Your task to perform on an android device: toggle location history Image 0: 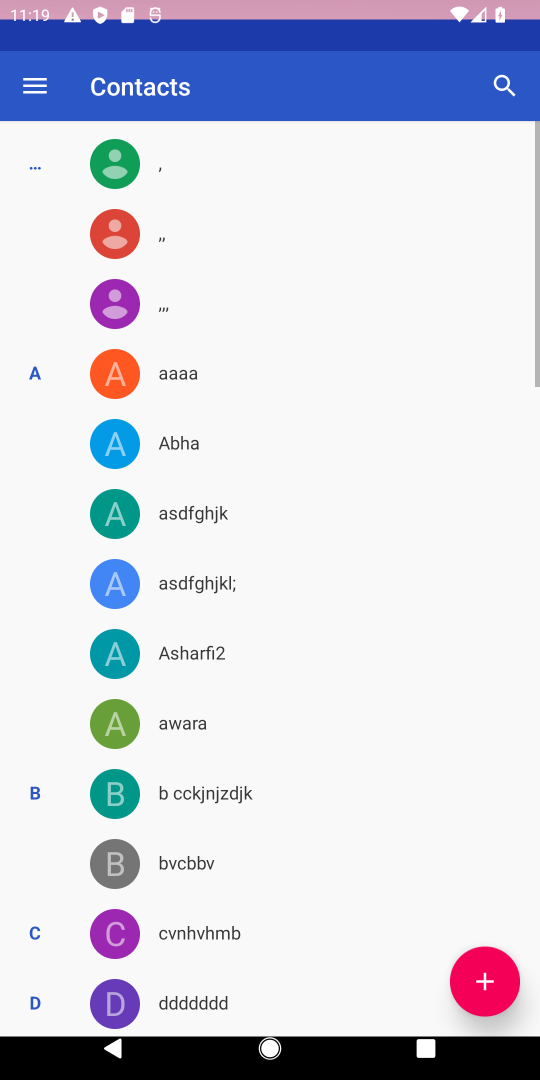
Step 0: press home button
Your task to perform on an android device: toggle location history Image 1: 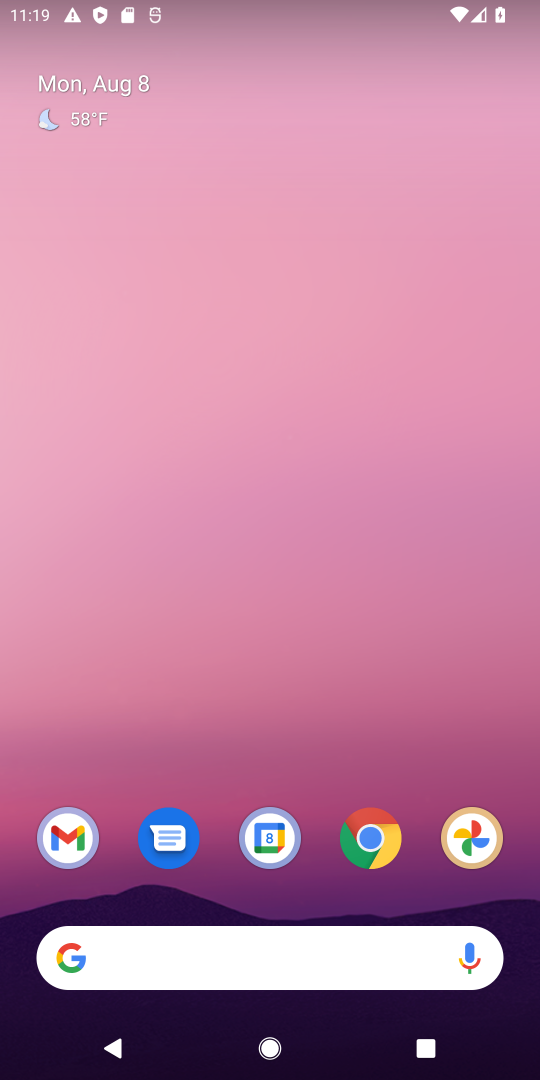
Step 1: drag from (352, 799) to (384, 174)
Your task to perform on an android device: toggle location history Image 2: 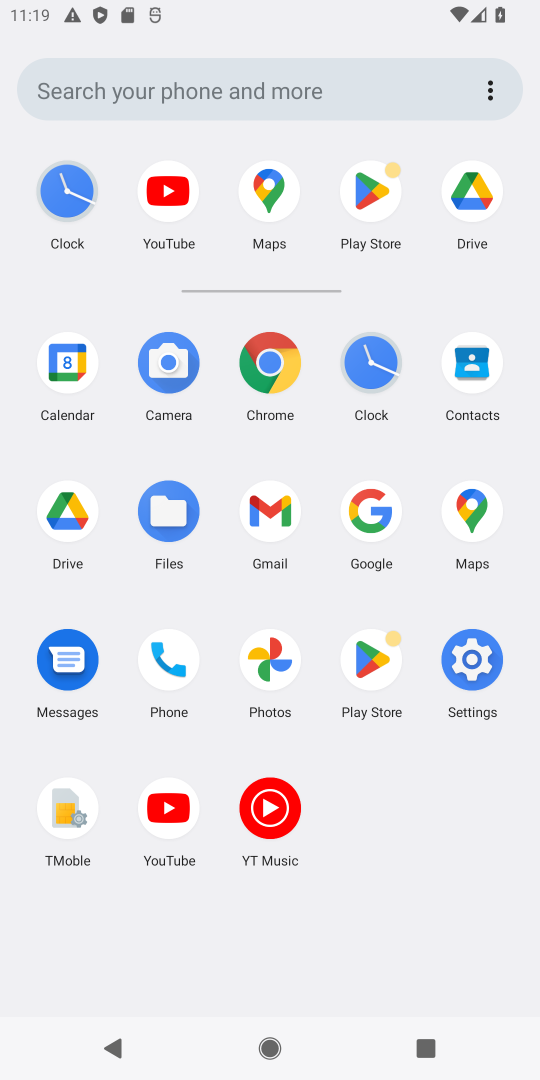
Step 2: click (471, 656)
Your task to perform on an android device: toggle location history Image 3: 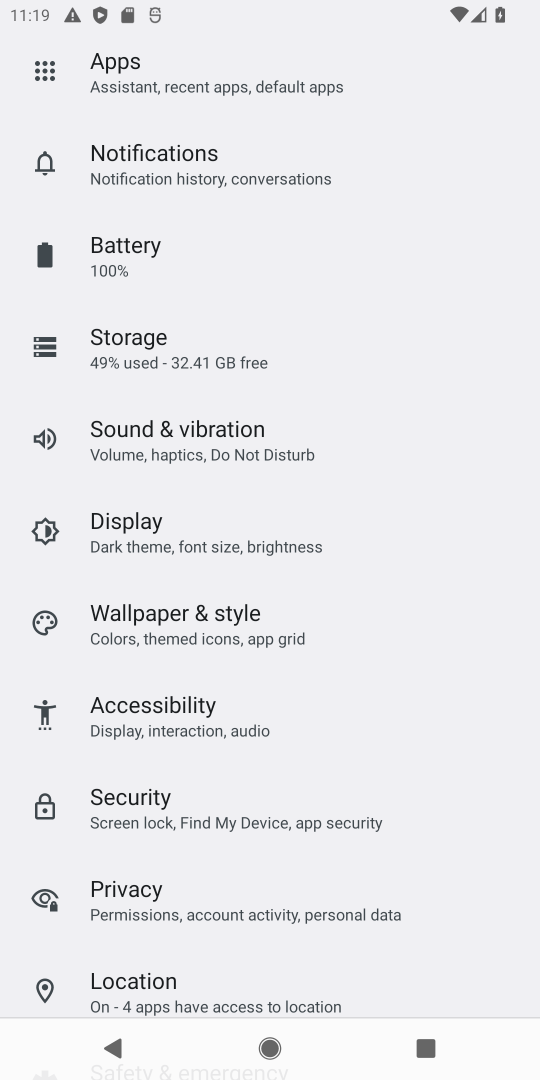
Step 3: click (125, 988)
Your task to perform on an android device: toggle location history Image 4: 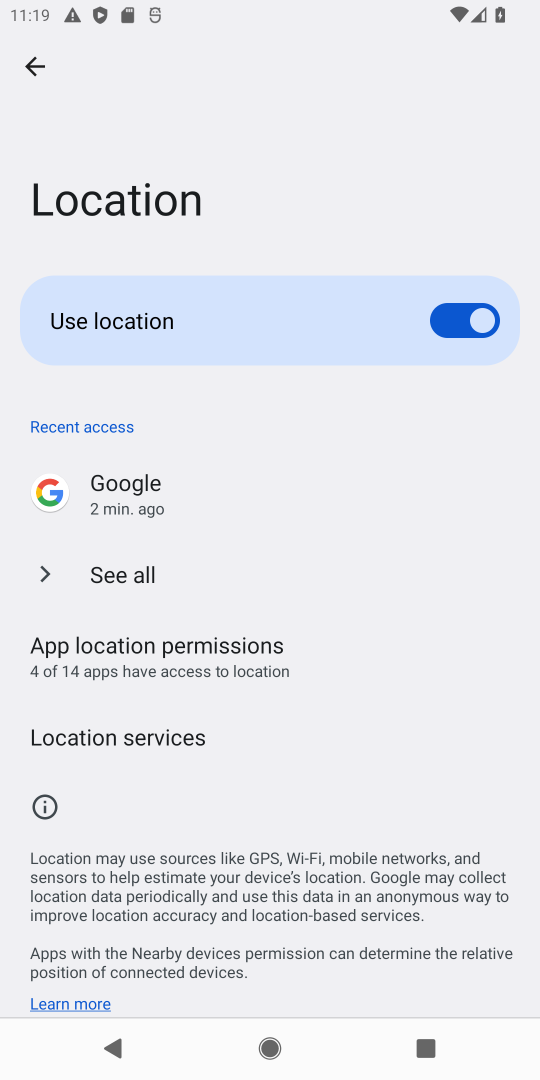
Step 4: click (100, 743)
Your task to perform on an android device: toggle location history Image 5: 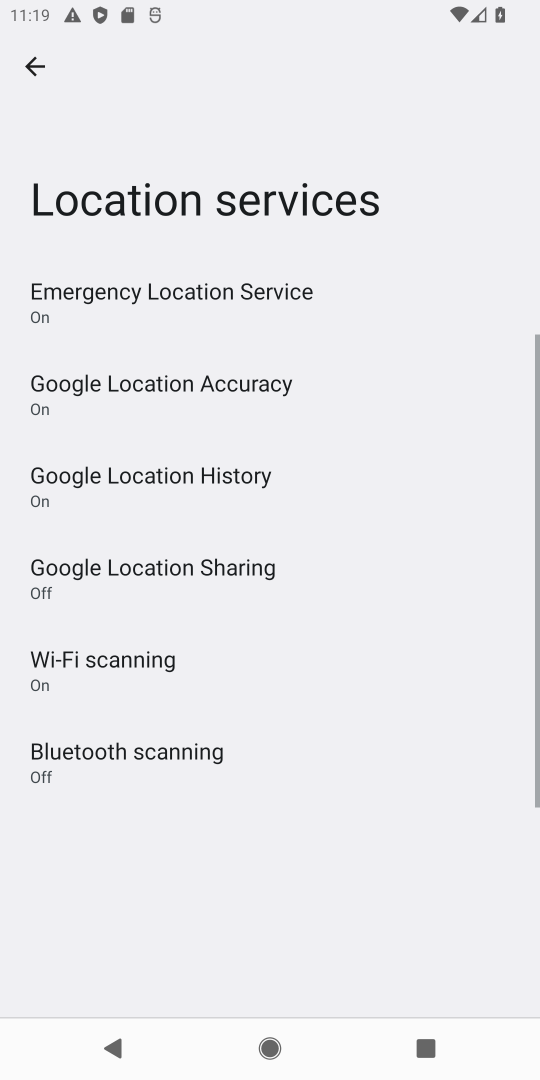
Step 5: click (211, 481)
Your task to perform on an android device: toggle location history Image 6: 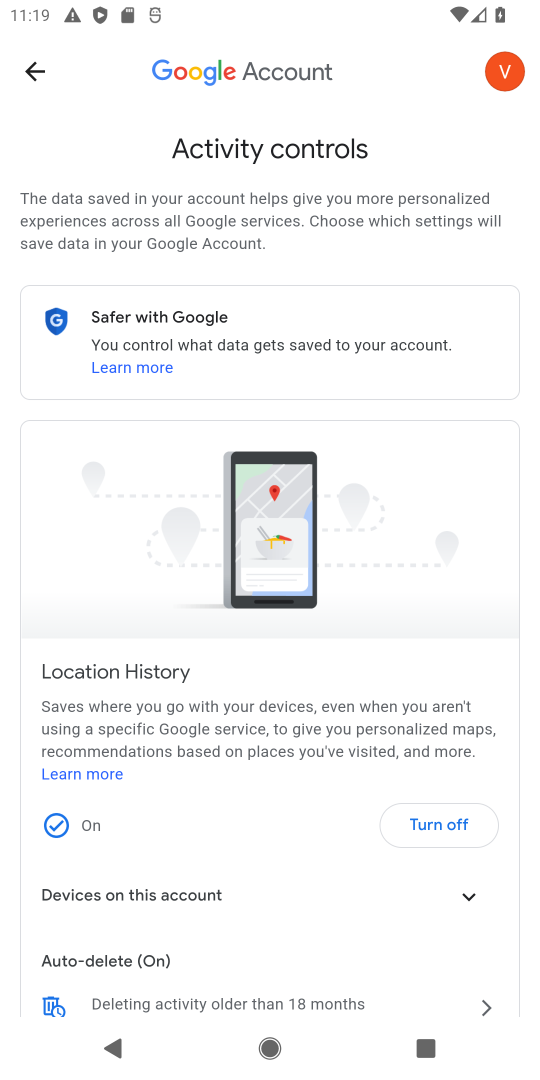
Step 6: click (446, 815)
Your task to perform on an android device: toggle location history Image 7: 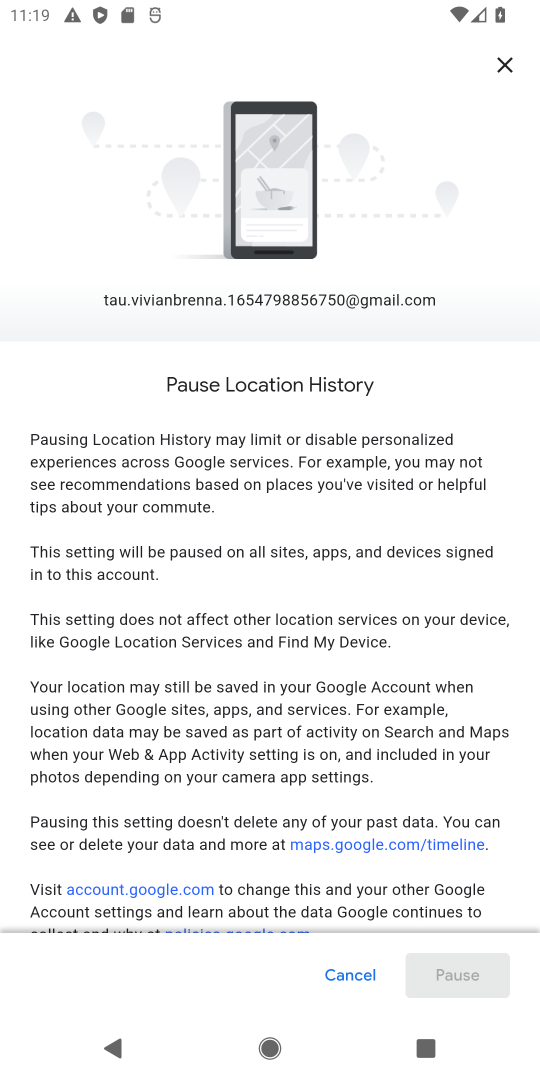
Step 7: drag from (488, 904) to (466, 238)
Your task to perform on an android device: toggle location history Image 8: 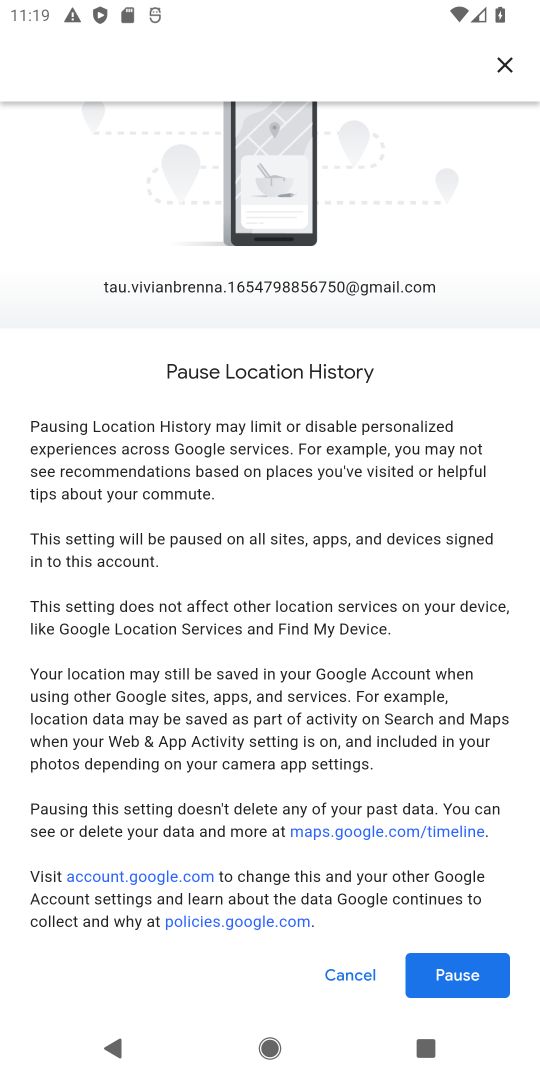
Step 8: click (452, 978)
Your task to perform on an android device: toggle location history Image 9: 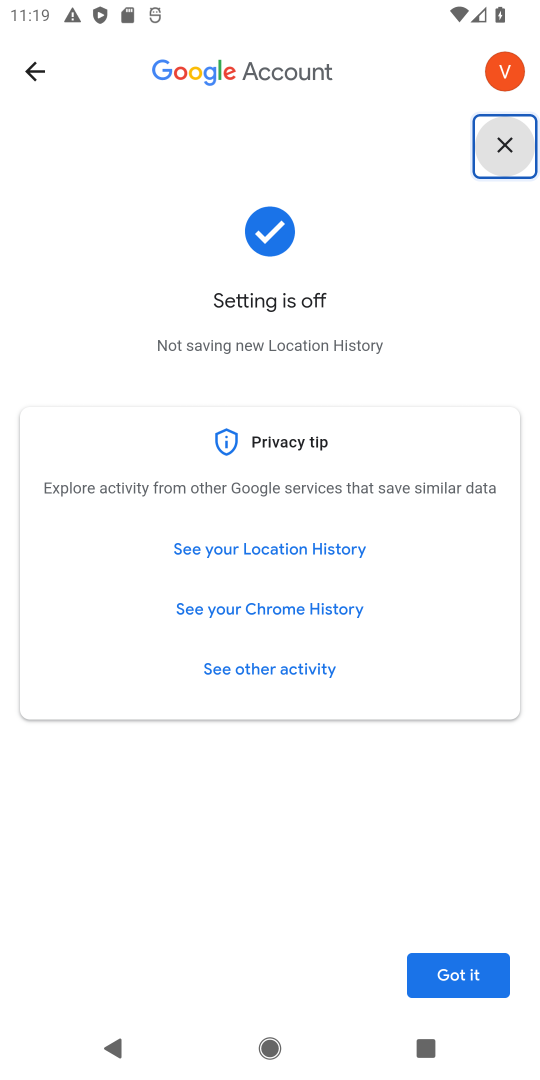
Step 9: click (456, 982)
Your task to perform on an android device: toggle location history Image 10: 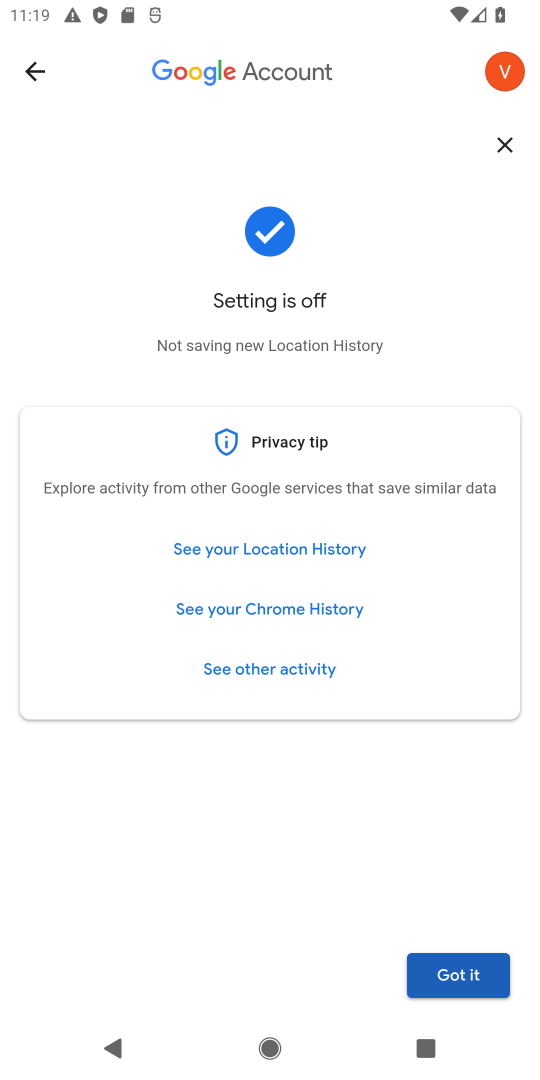
Step 10: click (472, 988)
Your task to perform on an android device: toggle location history Image 11: 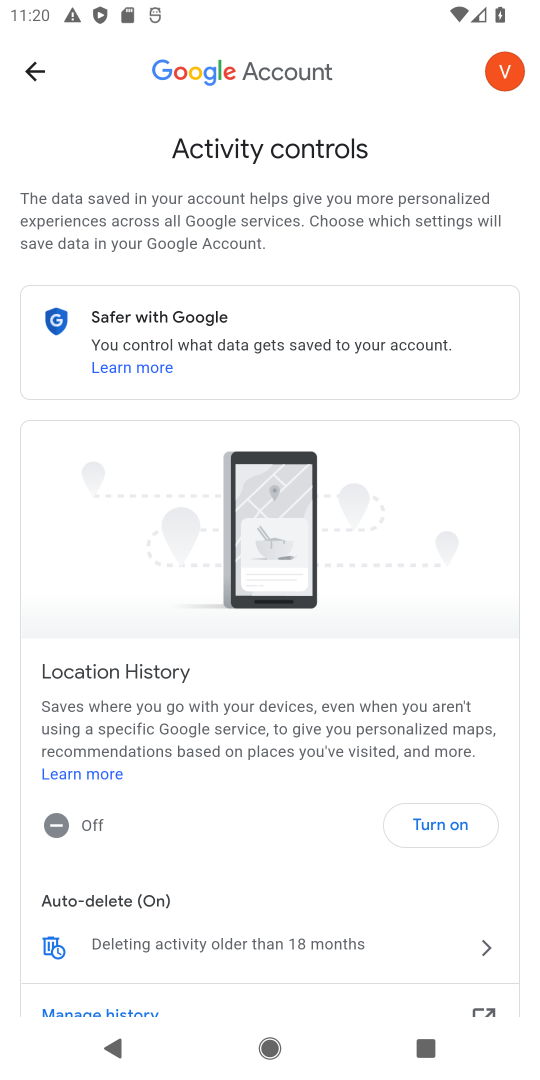
Step 11: task complete